Your task to perform on an android device: turn on improve location accuracy Image 0: 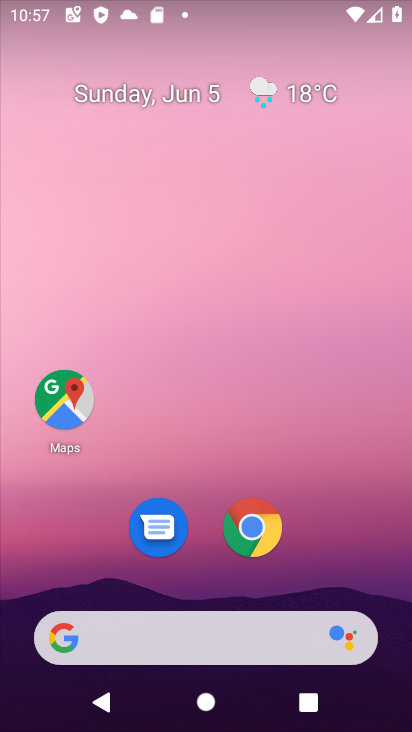
Step 0: drag from (323, 553) to (263, 5)
Your task to perform on an android device: turn on improve location accuracy Image 1: 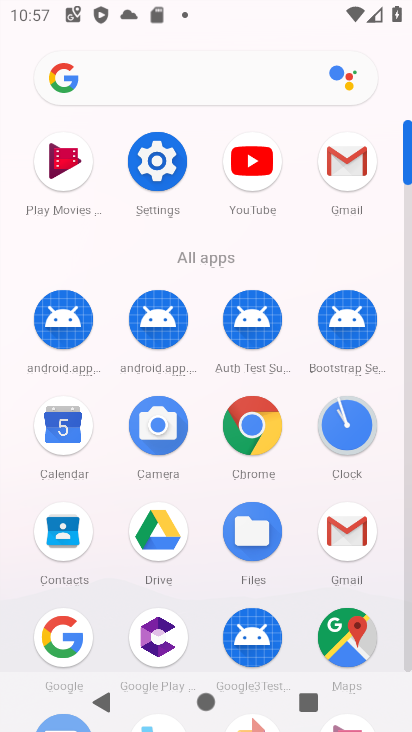
Step 1: click (142, 148)
Your task to perform on an android device: turn on improve location accuracy Image 2: 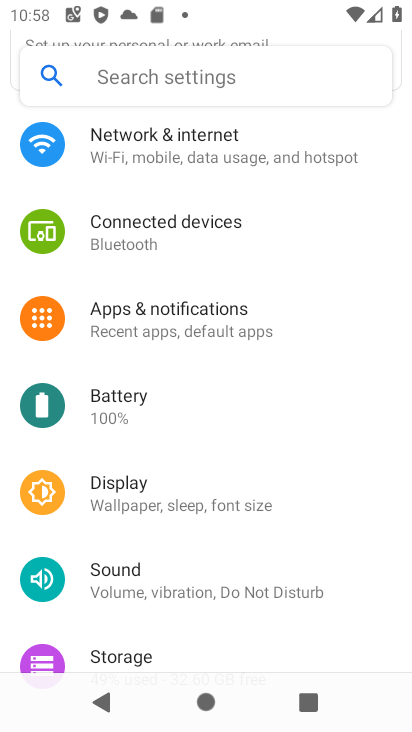
Step 2: drag from (257, 533) to (236, 50)
Your task to perform on an android device: turn on improve location accuracy Image 3: 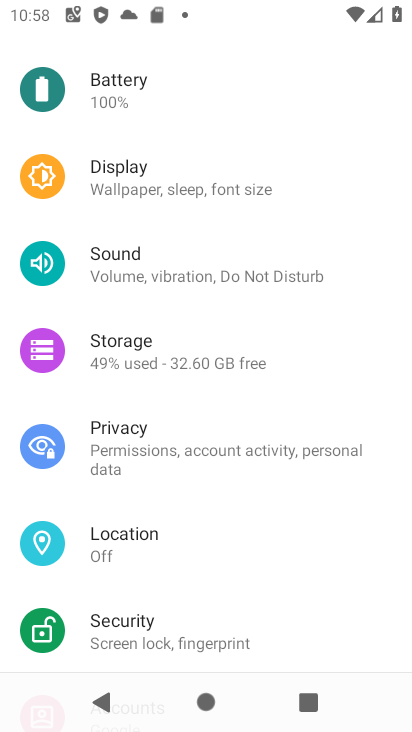
Step 3: click (169, 536)
Your task to perform on an android device: turn on improve location accuracy Image 4: 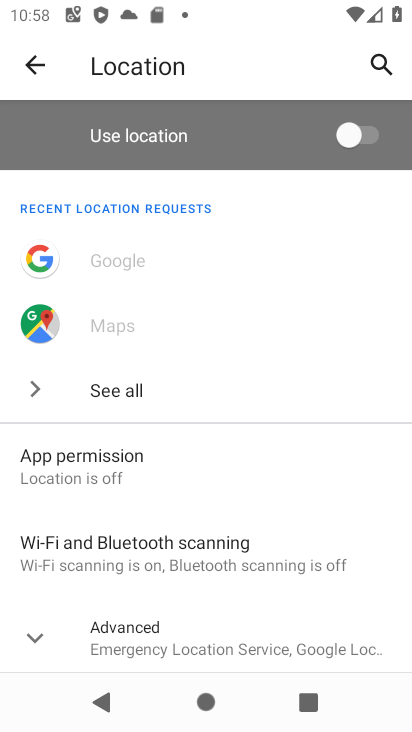
Step 4: drag from (237, 483) to (194, 154)
Your task to perform on an android device: turn on improve location accuracy Image 5: 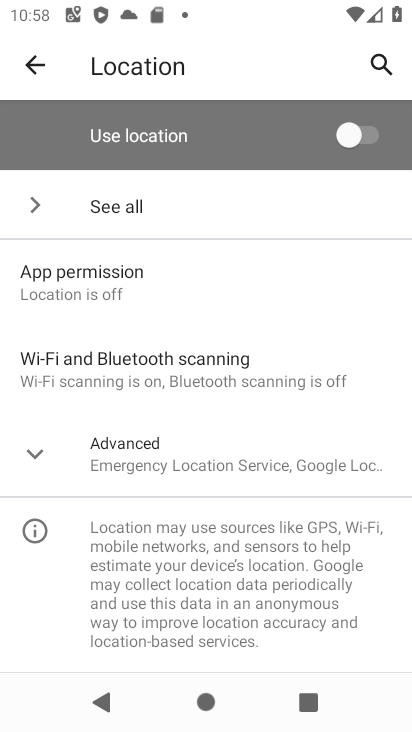
Step 5: click (174, 488)
Your task to perform on an android device: turn on improve location accuracy Image 6: 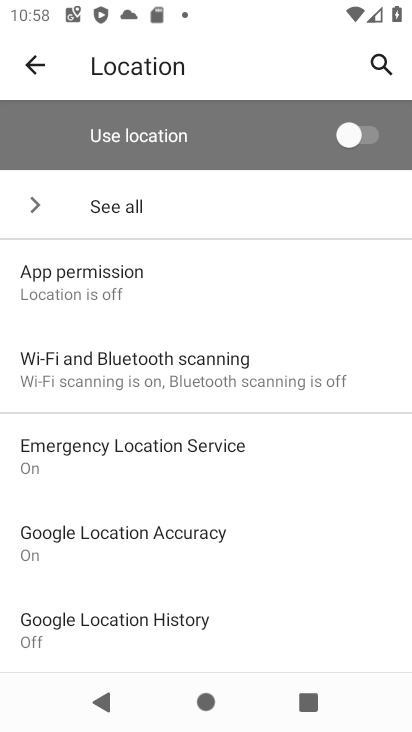
Step 6: click (201, 543)
Your task to perform on an android device: turn on improve location accuracy Image 7: 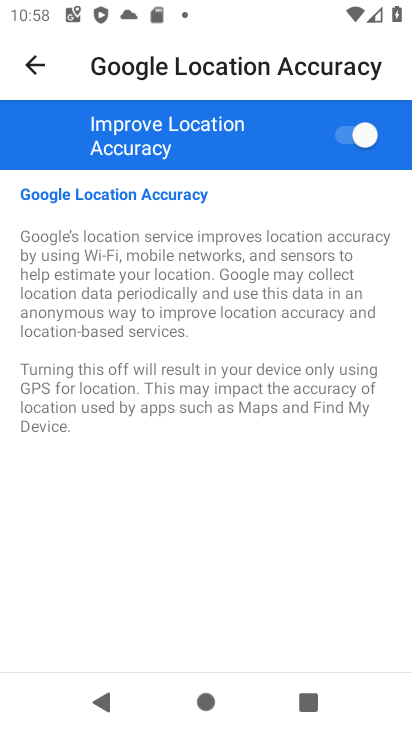
Step 7: task complete